Your task to perform on an android device: Open calendar and show me the fourth week of next month Image 0: 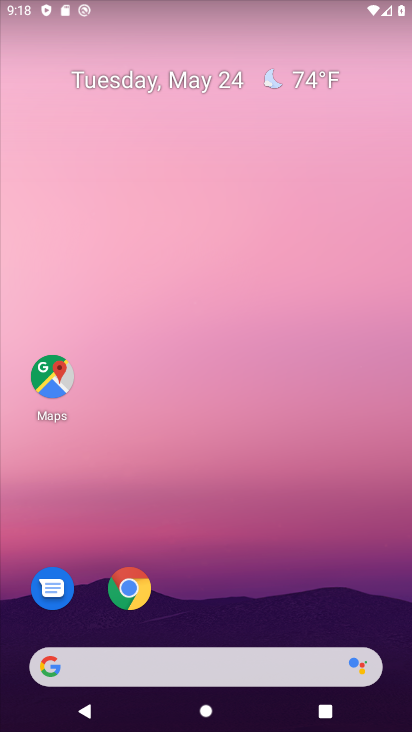
Step 0: click (192, 71)
Your task to perform on an android device: Open calendar and show me the fourth week of next month Image 1: 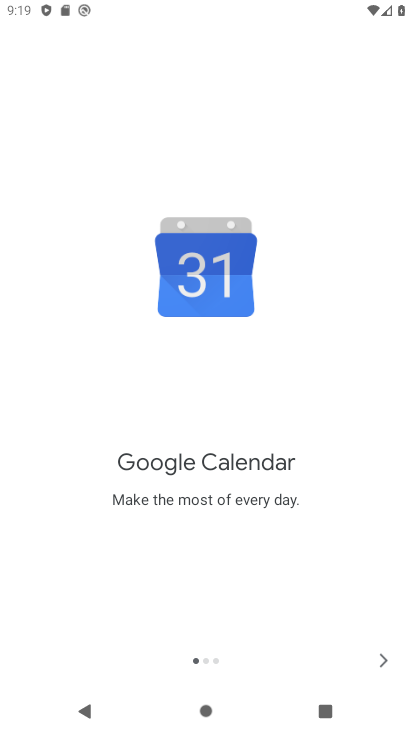
Step 1: click (387, 653)
Your task to perform on an android device: Open calendar and show me the fourth week of next month Image 2: 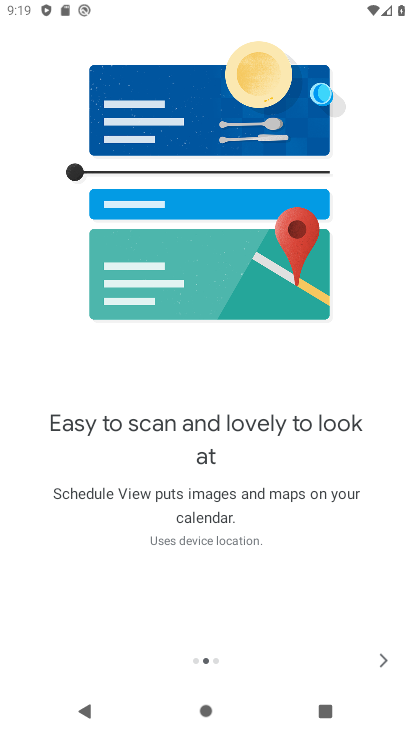
Step 2: click (387, 653)
Your task to perform on an android device: Open calendar and show me the fourth week of next month Image 3: 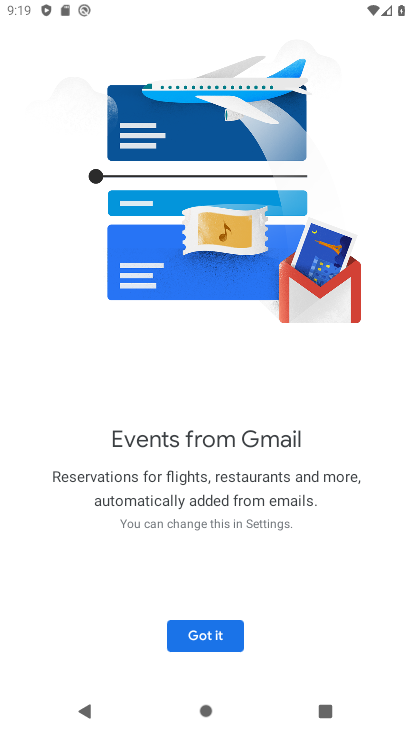
Step 3: click (224, 642)
Your task to perform on an android device: Open calendar and show me the fourth week of next month Image 4: 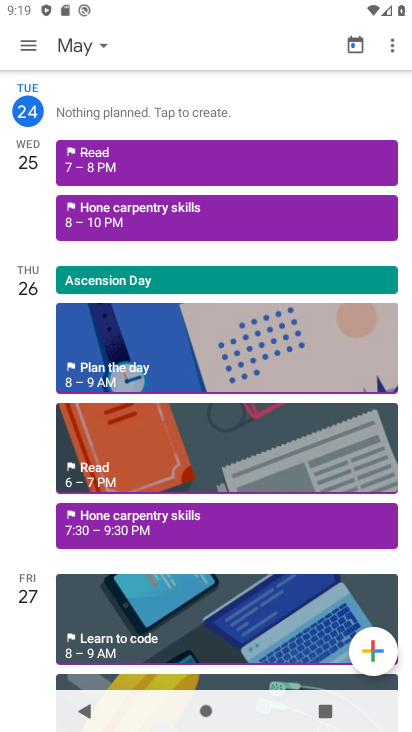
Step 4: click (84, 50)
Your task to perform on an android device: Open calendar and show me the fourth week of next month Image 5: 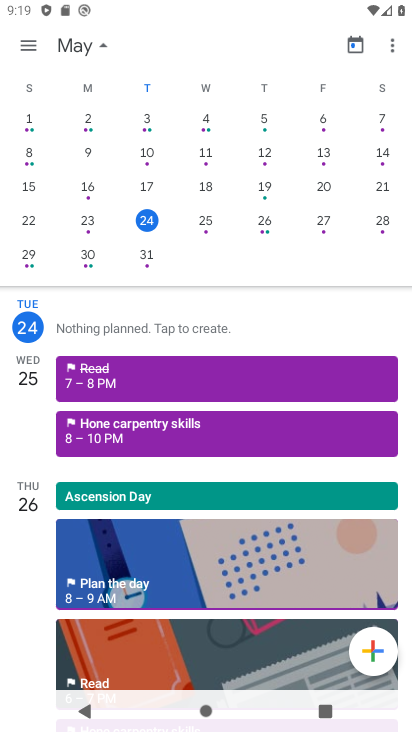
Step 5: drag from (353, 336) to (48, 581)
Your task to perform on an android device: Open calendar and show me the fourth week of next month Image 6: 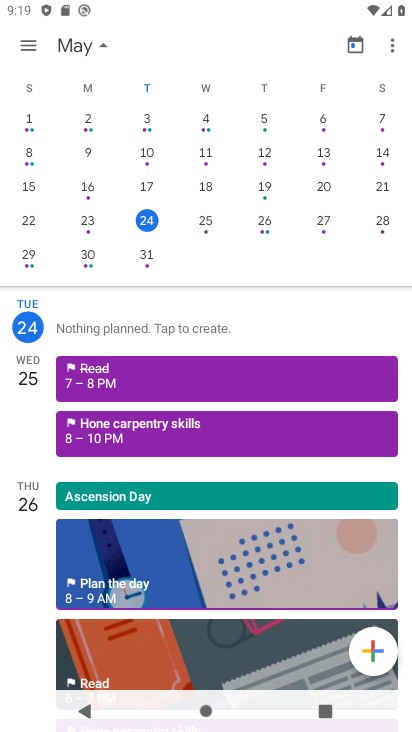
Step 6: drag from (299, 233) to (9, 308)
Your task to perform on an android device: Open calendar and show me the fourth week of next month Image 7: 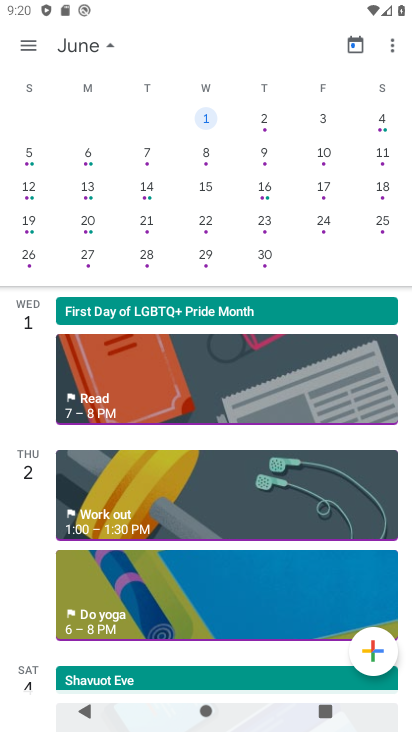
Step 7: click (264, 223)
Your task to perform on an android device: Open calendar and show me the fourth week of next month Image 8: 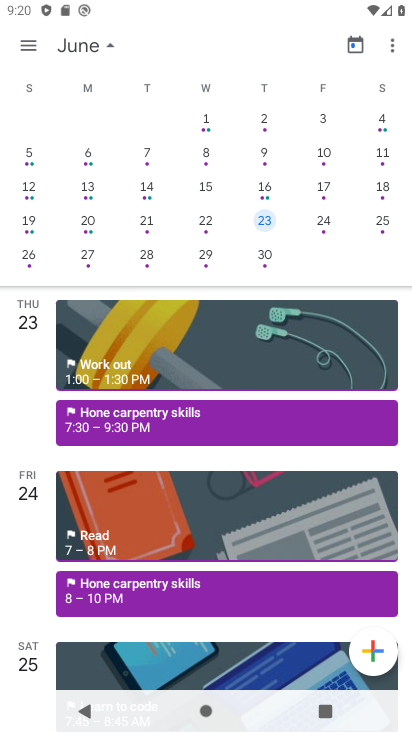
Step 8: task complete